Your task to perform on an android device: open chrome privacy settings Image 0: 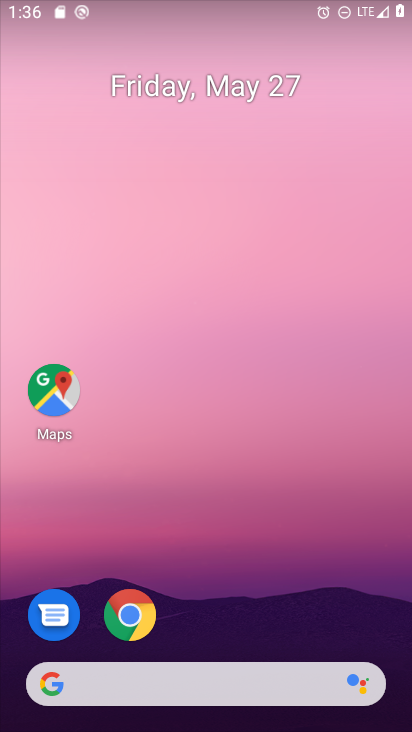
Step 0: drag from (290, 667) to (341, 92)
Your task to perform on an android device: open chrome privacy settings Image 1: 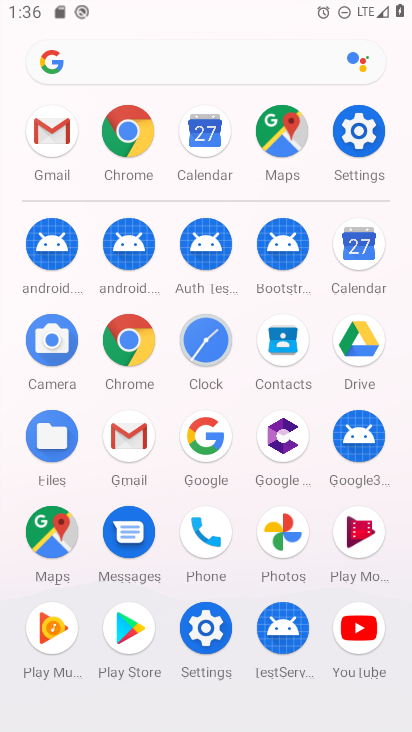
Step 1: click (362, 118)
Your task to perform on an android device: open chrome privacy settings Image 2: 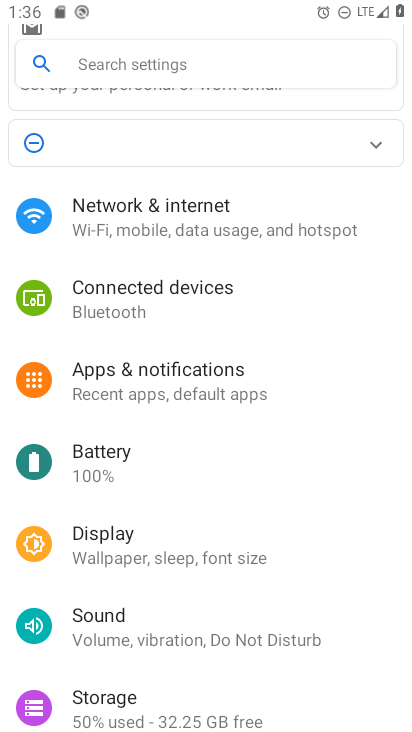
Step 2: press home button
Your task to perform on an android device: open chrome privacy settings Image 3: 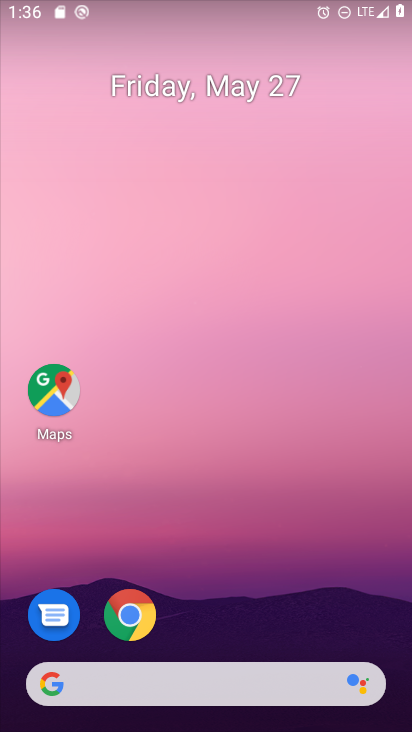
Step 3: drag from (269, 656) to (393, 23)
Your task to perform on an android device: open chrome privacy settings Image 4: 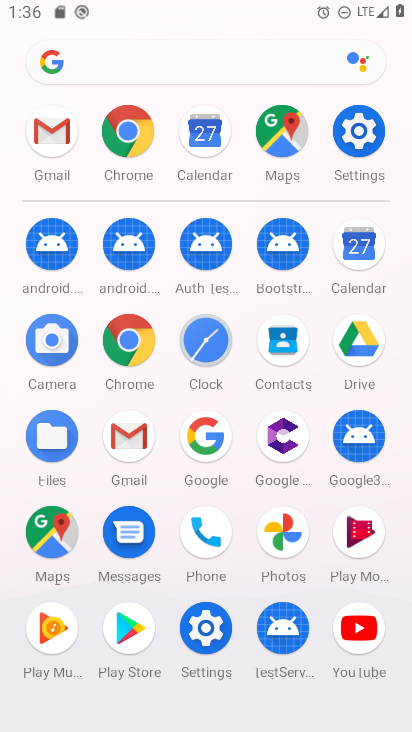
Step 4: click (134, 351)
Your task to perform on an android device: open chrome privacy settings Image 5: 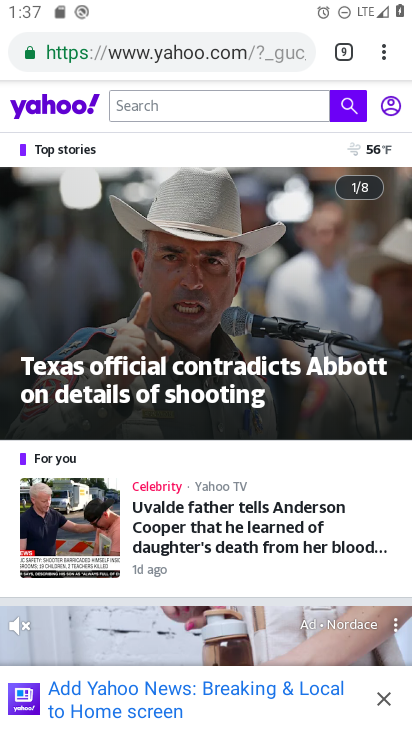
Step 5: click (384, 49)
Your task to perform on an android device: open chrome privacy settings Image 6: 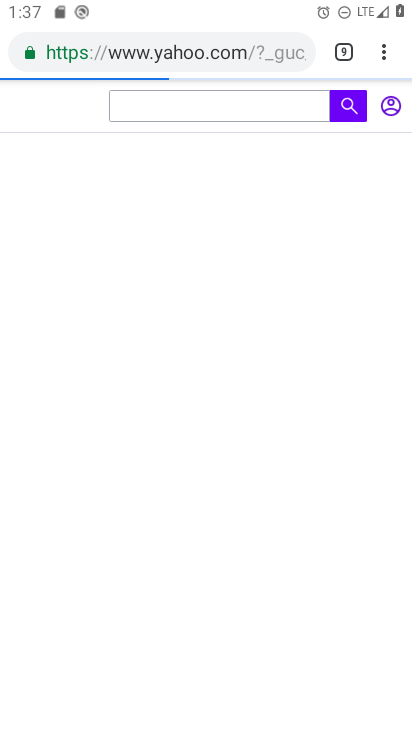
Step 6: drag from (382, 51) to (225, 638)
Your task to perform on an android device: open chrome privacy settings Image 7: 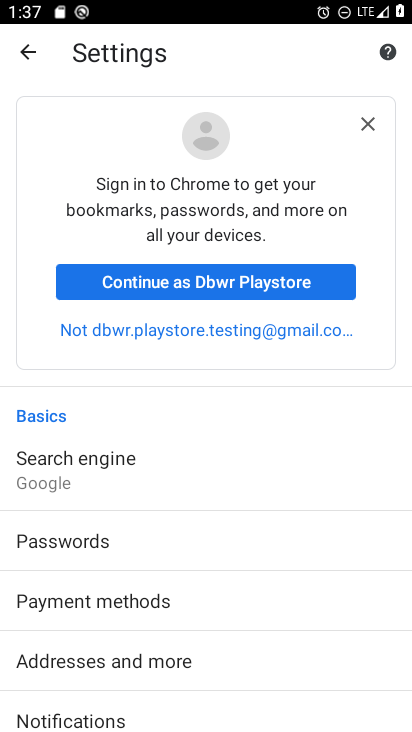
Step 7: drag from (219, 714) to (248, 95)
Your task to perform on an android device: open chrome privacy settings Image 8: 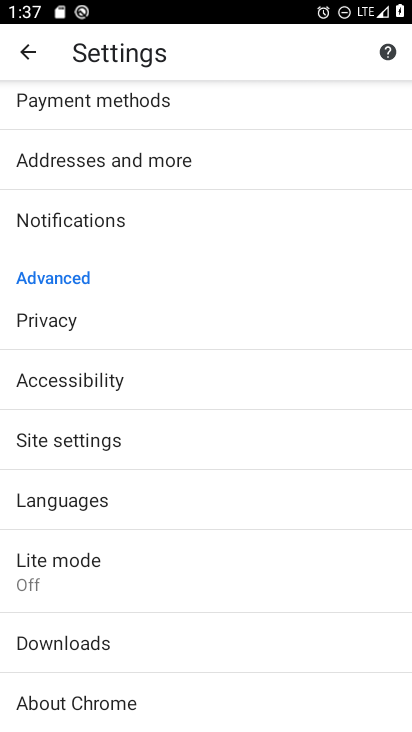
Step 8: click (165, 447)
Your task to perform on an android device: open chrome privacy settings Image 9: 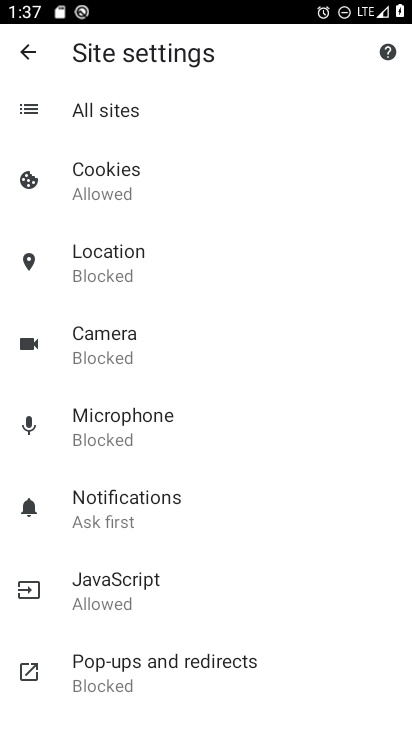
Step 9: press back button
Your task to perform on an android device: open chrome privacy settings Image 10: 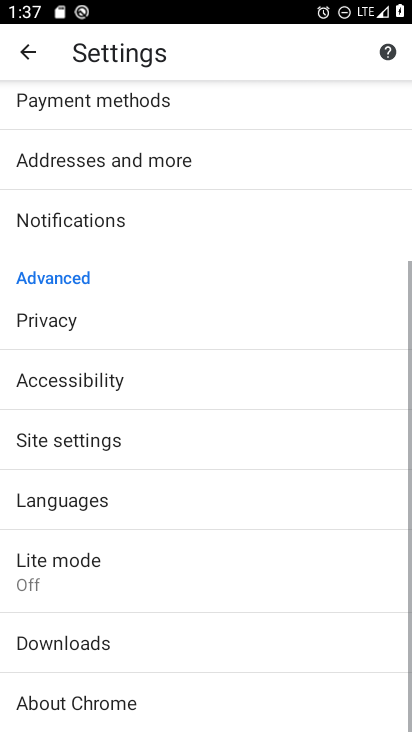
Step 10: click (155, 321)
Your task to perform on an android device: open chrome privacy settings Image 11: 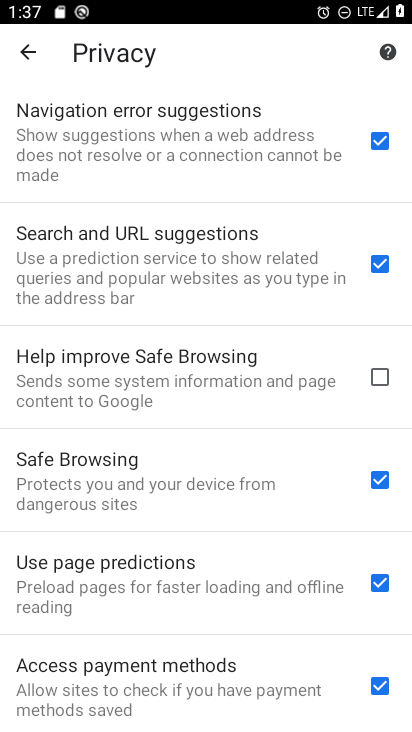
Step 11: task complete